Your task to perform on an android device: Go to notification settings Image 0: 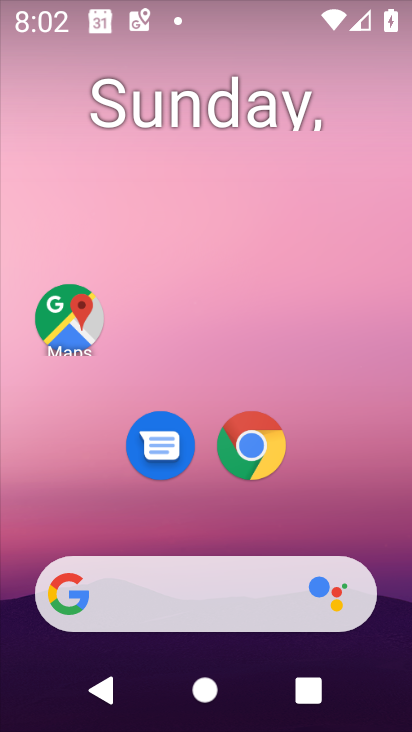
Step 0: drag from (0, 546) to (250, 96)
Your task to perform on an android device: Go to notification settings Image 1: 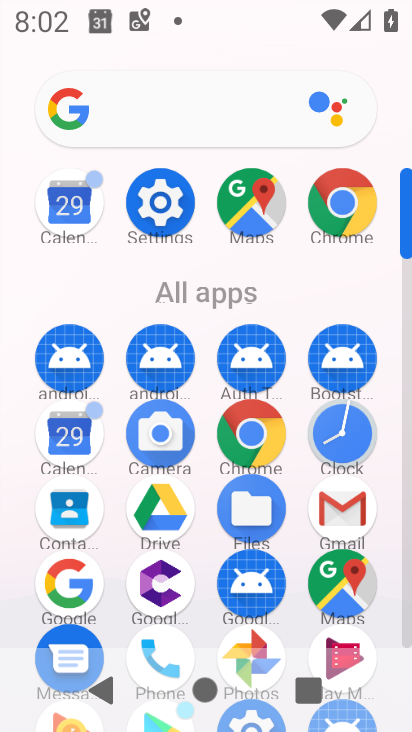
Step 1: click (161, 199)
Your task to perform on an android device: Go to notification settings Image 2: 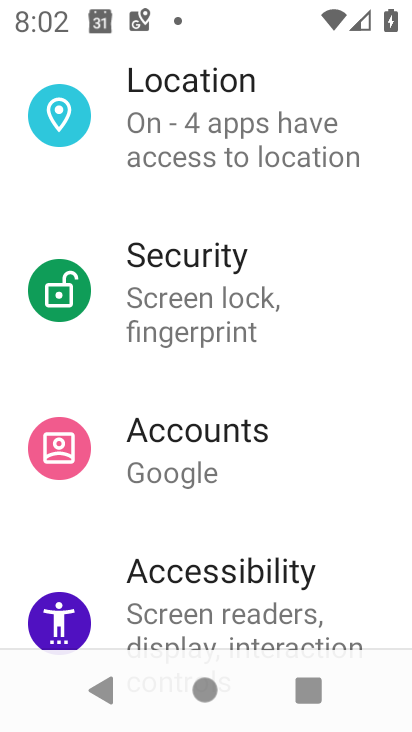
Step 2: drag from (170, 164) to (118, 660)
Your task to perform on an android device: Go to notification settings Image 3: 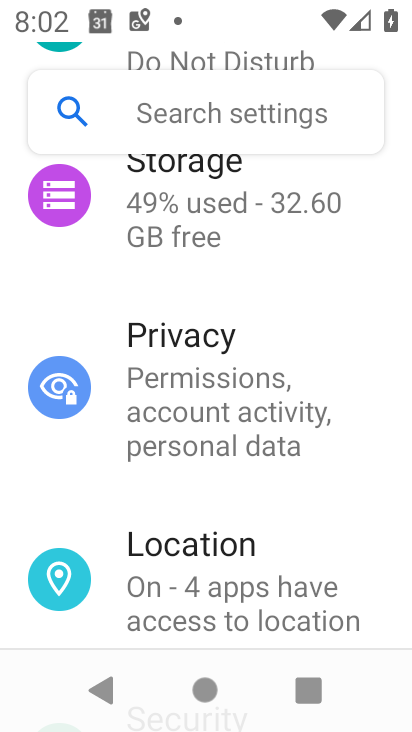
Step 3: drag from (134, 216) to (117, 694)
Your task to perform on an android device: Go to notification settings Image 4: 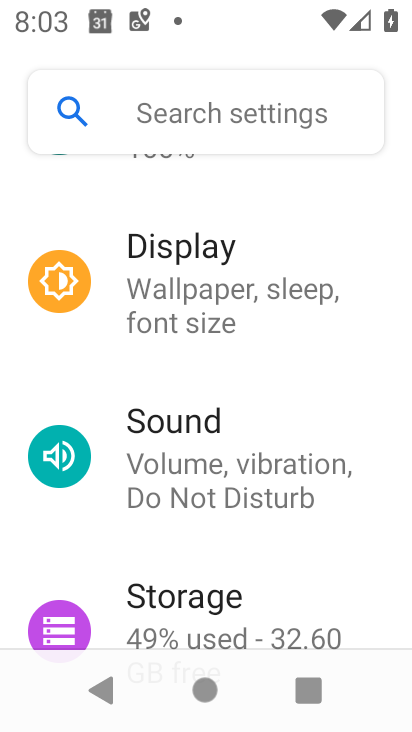
Step 4: drag from (125, 214) to (91, 640)
Your task to perform on an android device: Go to notification settings Image 5: 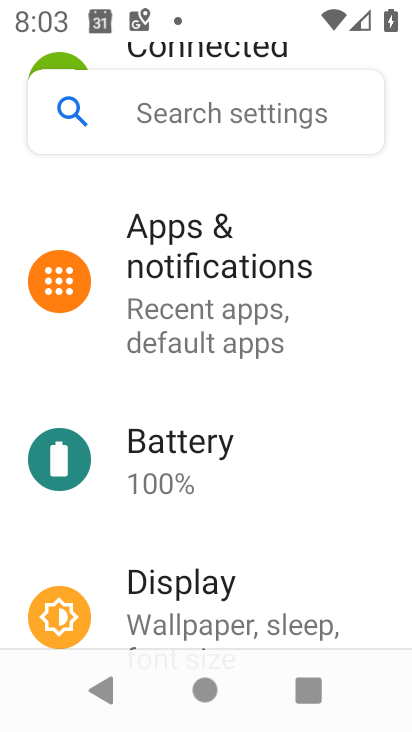
Step 5: click (137, 287)
Your task to perform on an android device: Go to notification settings Image 6: 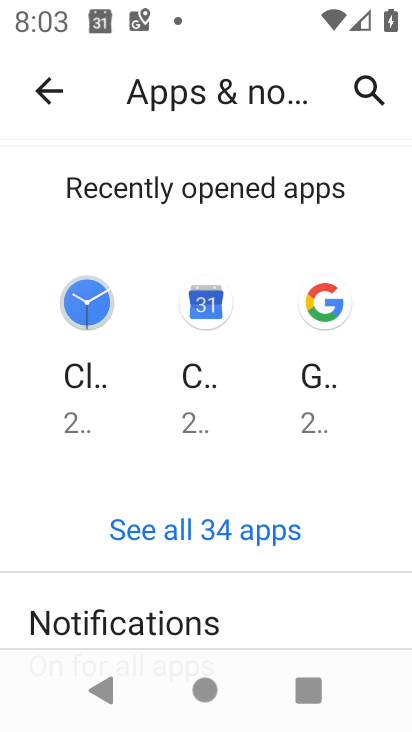
Step 6: task complete